Your task to perform on an android device: turn off location history Image 0: 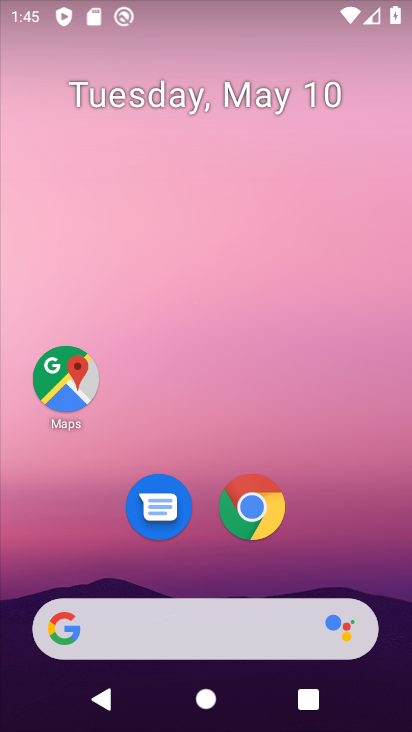
Step 0: drag from (296, 19) to (198, 52)
Your task to perform on an android device: turn off location history Image 1: 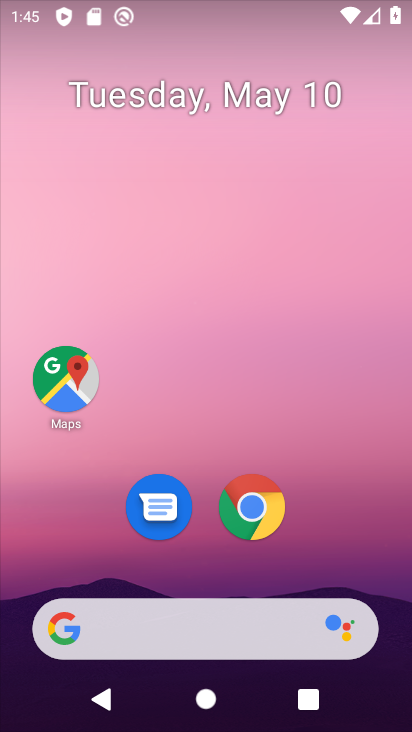
Step 1: click (401, 448)
Your task to perform on an android device: turn off location history Image 2: 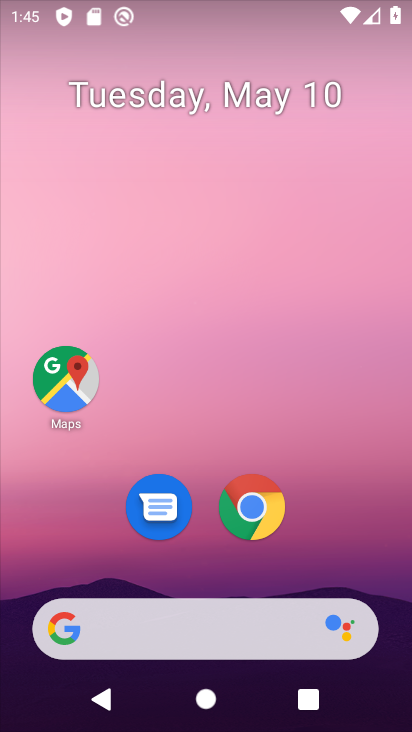
Step 2: drag from (125, 102) to (67, 83)
Your task to perform on an android device: turn off location history Image 3: 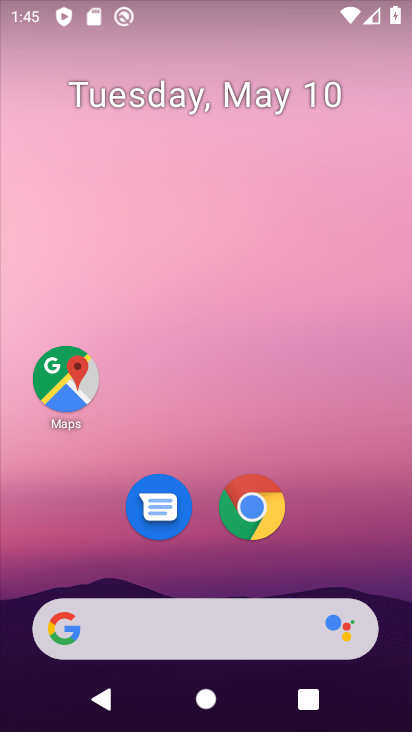
Step 3: click (60, 377)
Your task to perform on an android device: turn off location history Image 4: 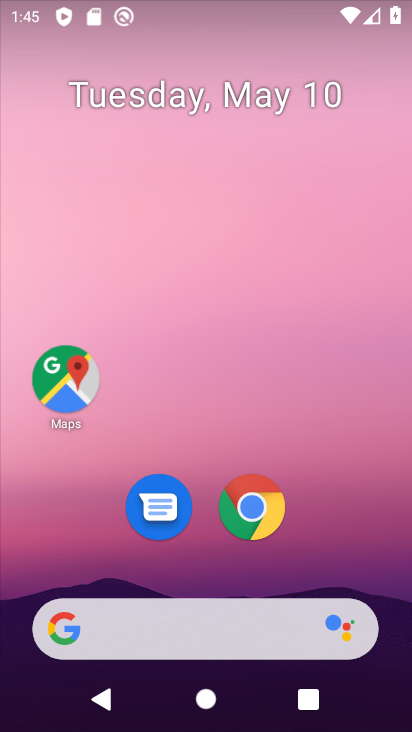
Step 4: click (62, 376)
Your task to perform on an android device: turn off location history Image 5: 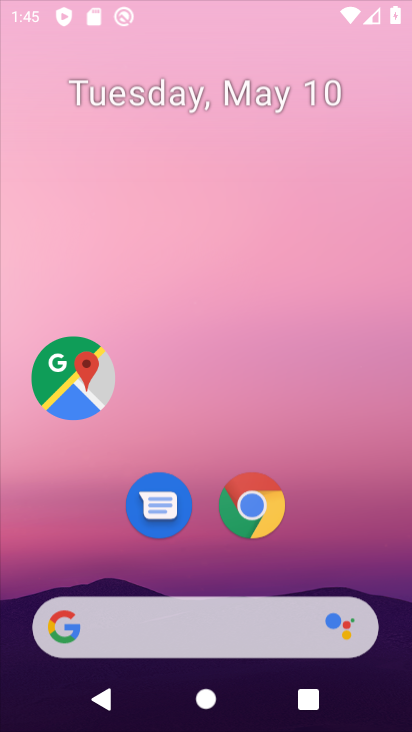
Step 5: drag from (278, 526) to (175, 92)
Your task to perform on an android device: turn off location history Image 6: 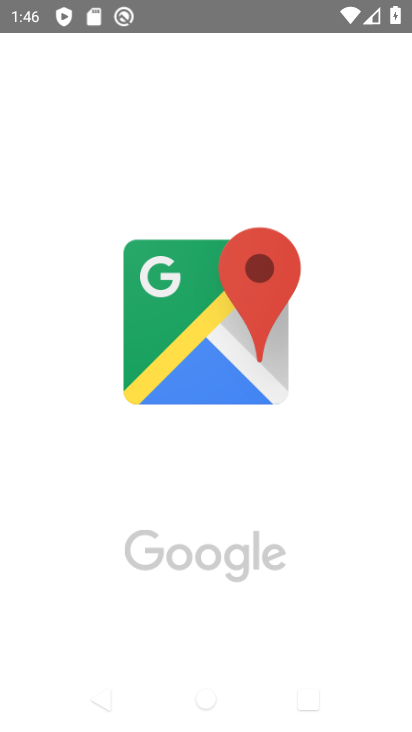
Step 6: drag from (193, 559) to (130, 1)
Your task to perform on an android device: turn off location history Image 7: 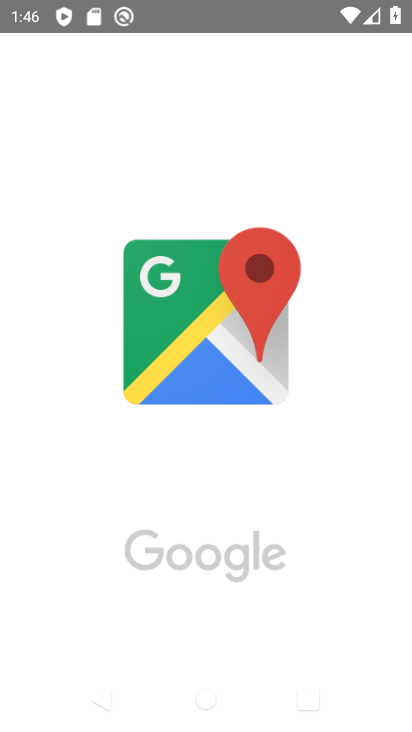
Step 7: drag from (292, 525) to (179, 165)
Your task to perform on an android device: turn off location history Image 8: 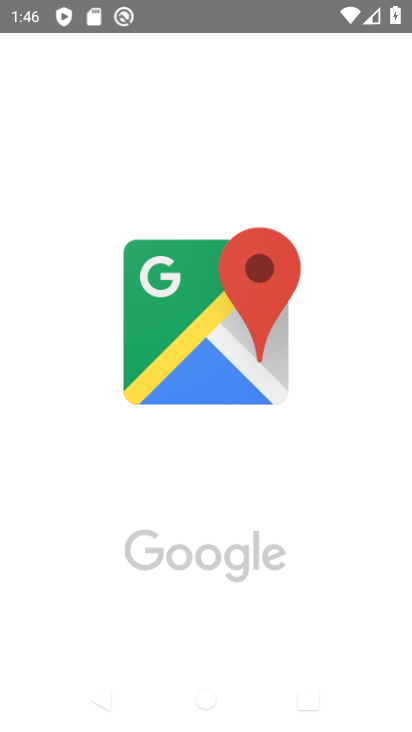
Step 8: drag from (250, 640) to (163, 18)
Your task to perform on an android device: turn off location history Image 9: 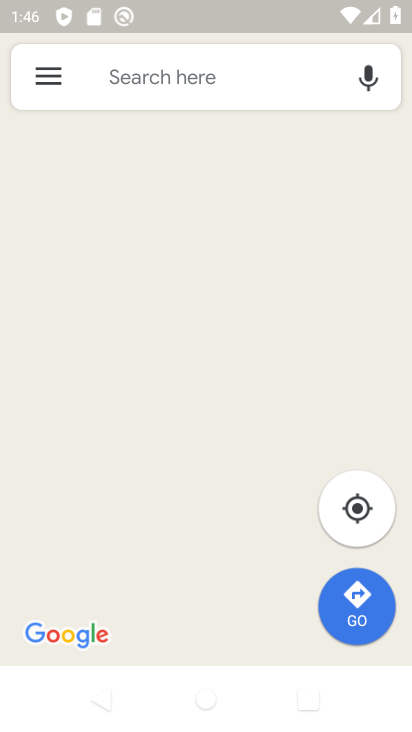
Step 9: drag from (278, 520) to (236, 24)
Your task to perform on an android device: turn off location history Image 10: 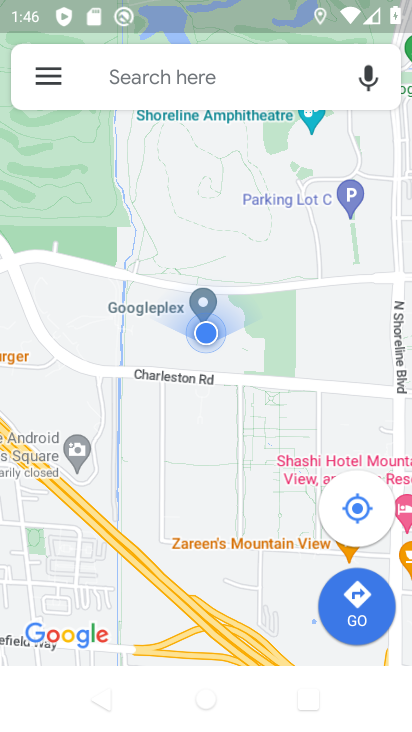
Step 10: click (49, 71)
Your task to perform on an android device: turn off location history Image 11: 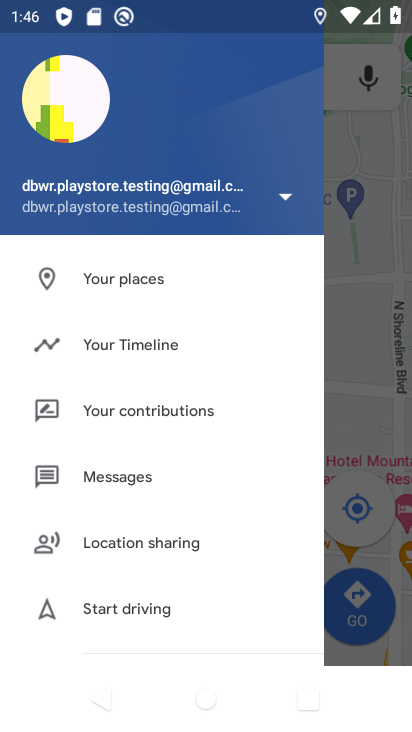
Step 11: click (129, 339)
Your task to perform on an android device: turn off location history Image 12: 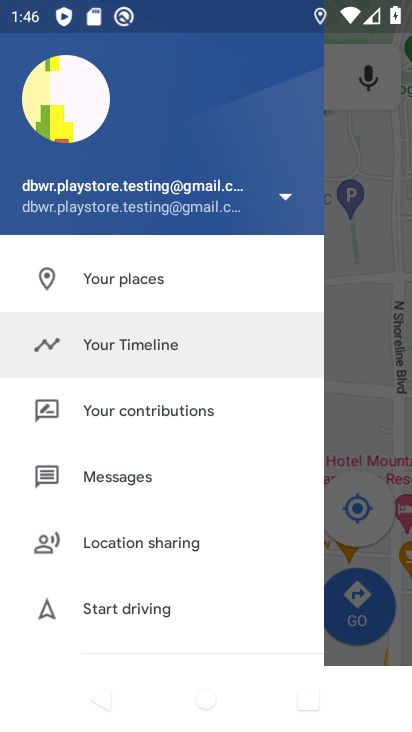
Step 12: click (129, 339)
Your task to perform on an android device: turn off location history Image 13: 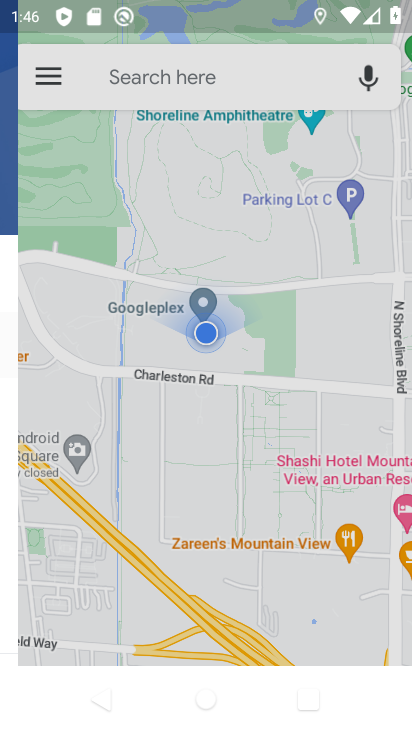
Step 13: click (127, 341)
Your task to perform on an android device: turn off location history Image 14: 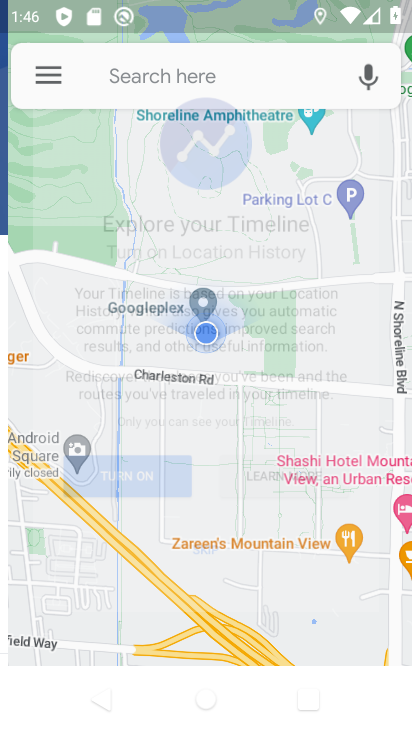
Step 14: click (127, 343)
Your task to perform on an android device: turn off location history Image 15: 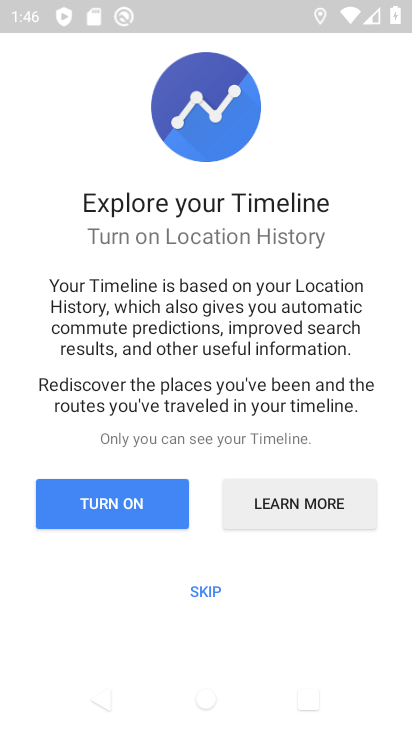
Step 15: click (108, 341)
Your task to perform on an android device: turn off location history Image 16: 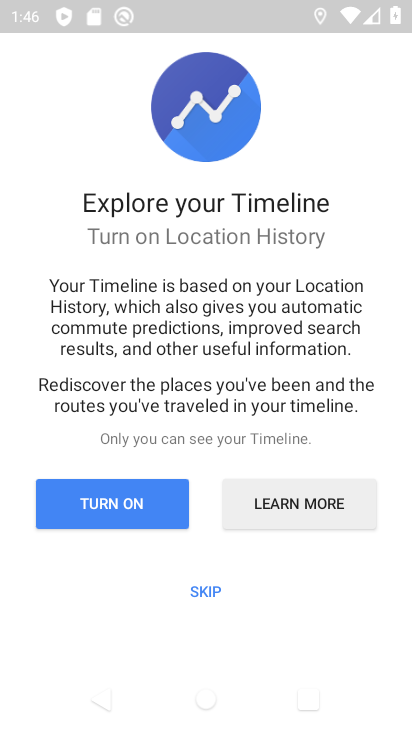
Step 16: click (153, 509)
Your task to perform on an android device: turn off location history Image 17: 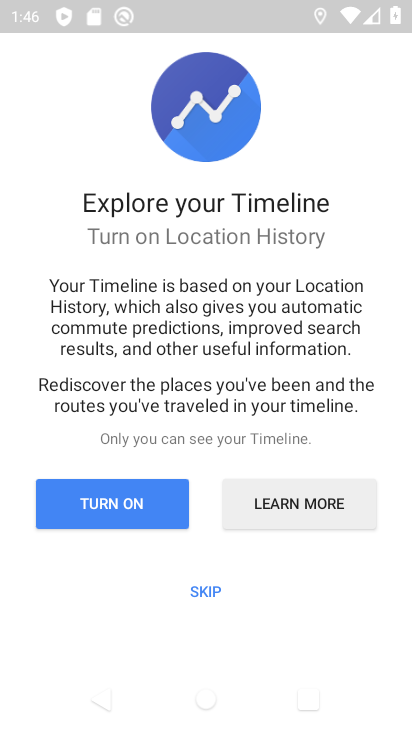
Step 17: click (138, 502)
Your task to perform on an android device: turn off location history Image 18: 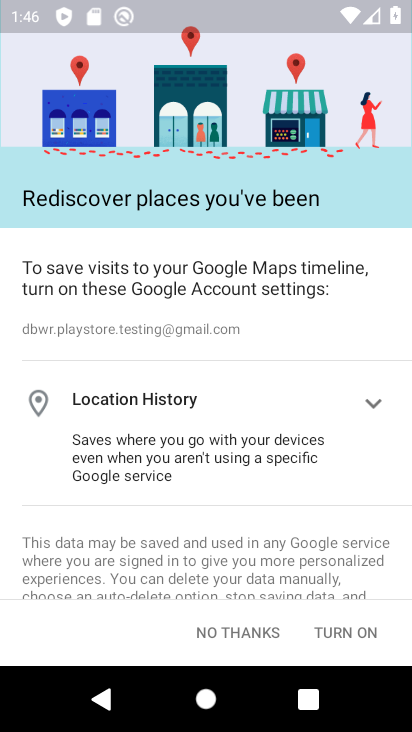
Step 18: click (342, 626)
Your task to perform on an android device: turn off location history Image 19: 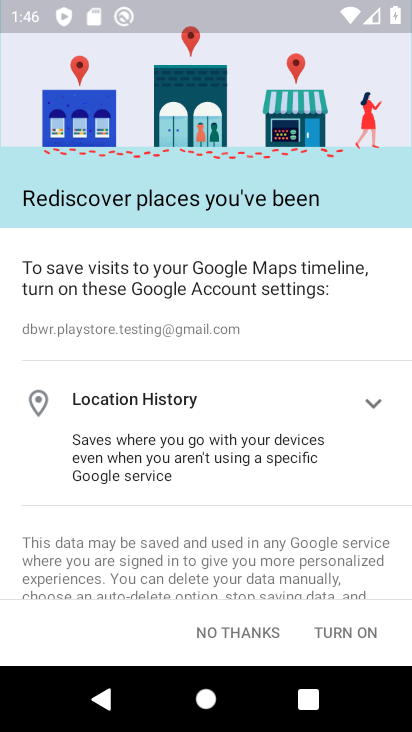
Step 19: click (342, 626)
Your task to perform on an android device: turn off location history Image 20: 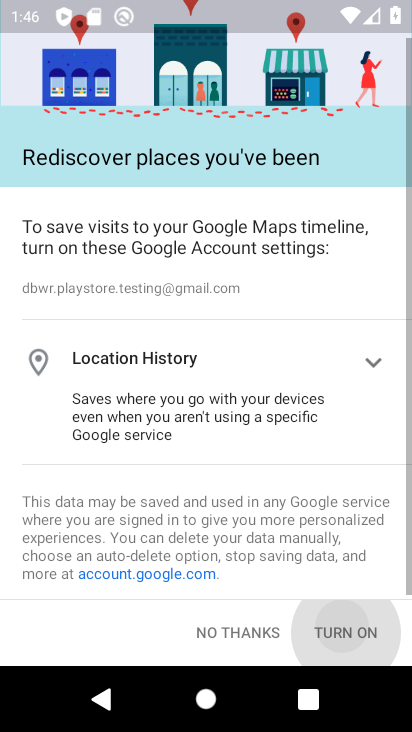
Step 20: click (342, 626)
Your task to perform on an android device: turn off location history Image 21: 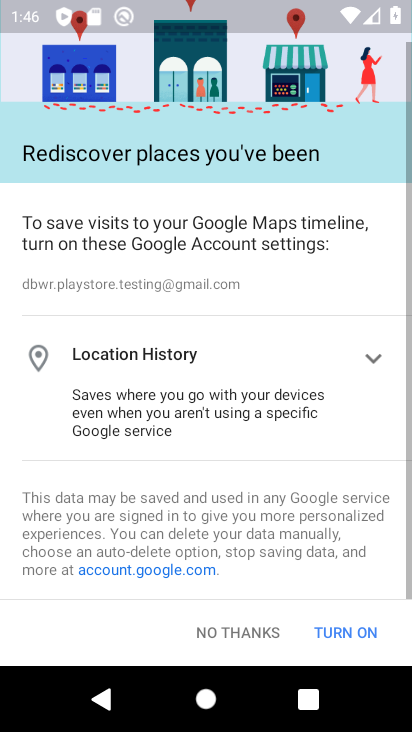
Step 21: click (343, 623)
Your task to perform on an android device: turn off location history Image 22: 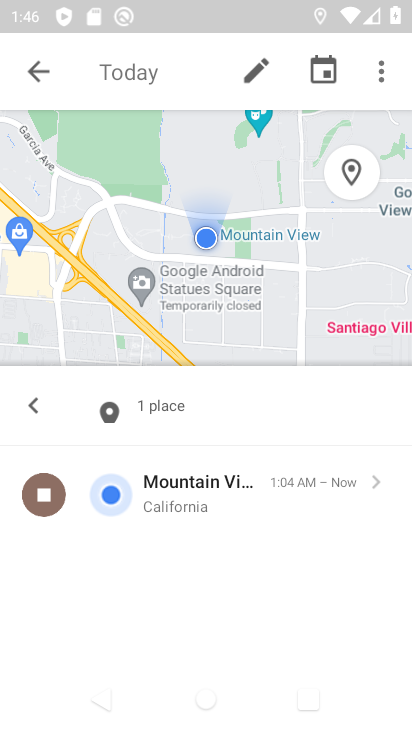
Step 22: task complete